Your task to perform on an android device: see creations saved in the google photos Image 0: 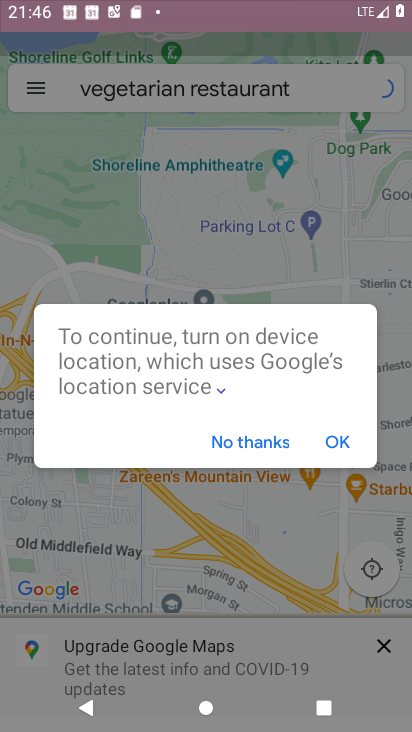
Step 0: click (260, 214)
Your task to perform on an android device: see creations saved in the google photos Image 1: 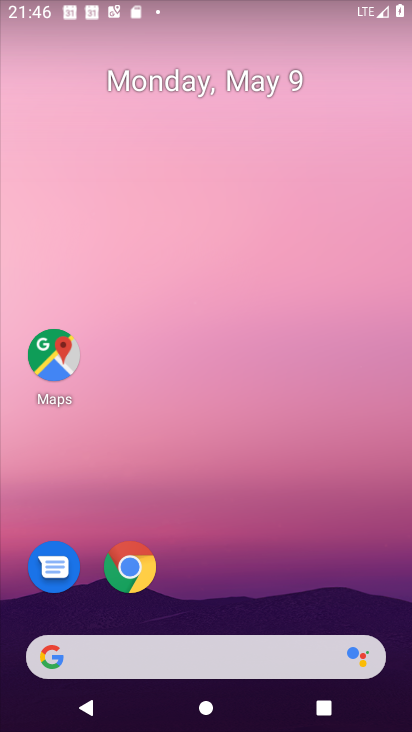
Step 1: drag from (193, 593) to (295, 128)
Your task to perform on an android device: see creations saved in the google photos Image 2: 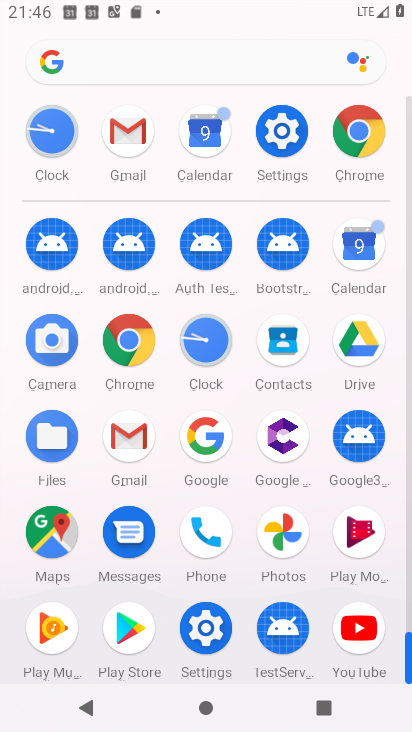
Step 2: click (280, 535)
Your task to perform on an android device: see creations saved in the google photos Image 3: 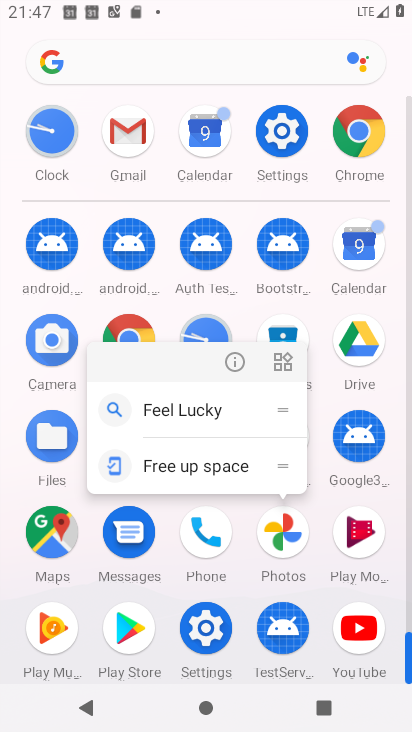
Step 3: click (223, 360)
Your task to perform on an android device: see creations saved in the google photos Image 4: 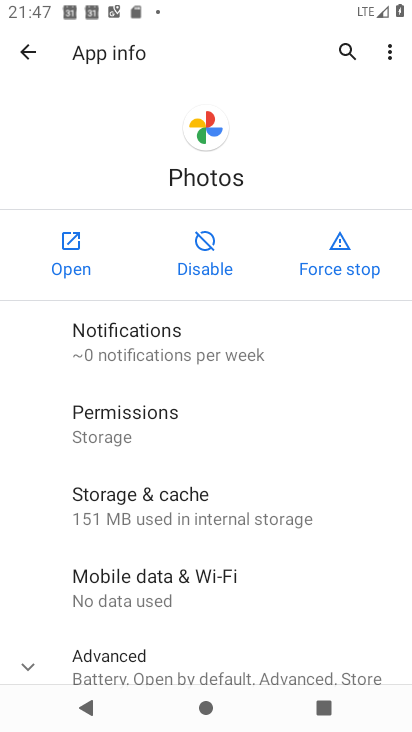
Step 4: click (52, 248)
Your task to perform on an android device: see creations saved in the google photos Image 5: 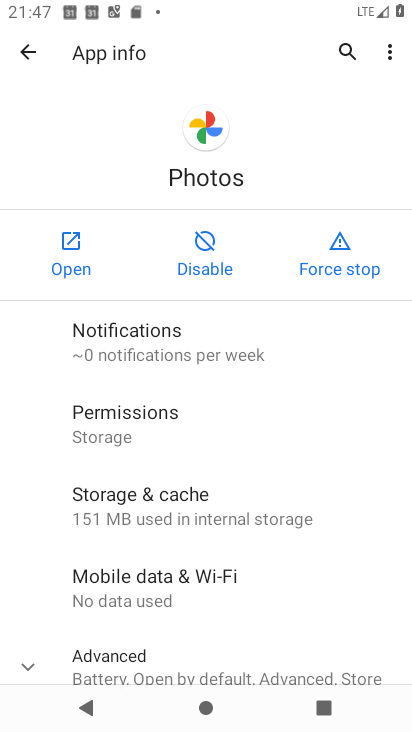
Step 5: click (57, 249)
Your task to perform on an android device: see creations saved in the google photos Image 6: 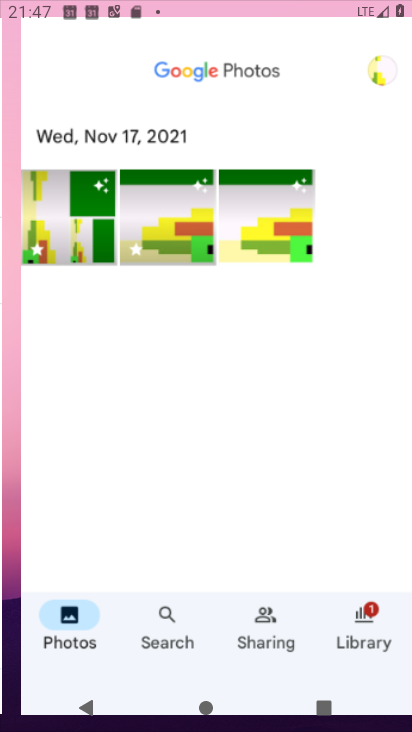
Step 6: click (66, 249)
Your task to perform on an android device: see creations saved in the google photos Image 7: 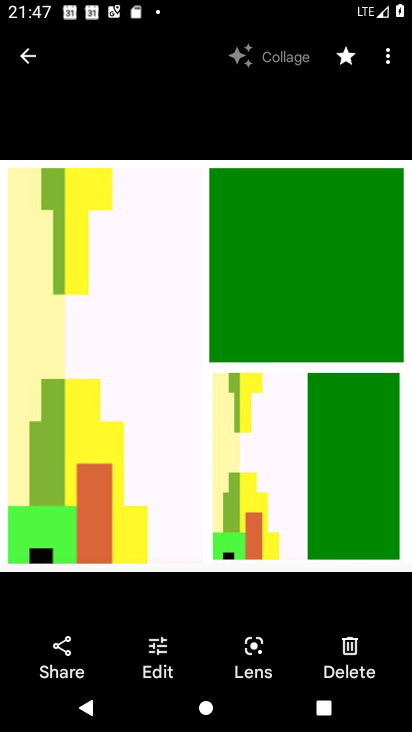
Step 7: click (167, 652)
Your task to perform on an android device: see creations saved in the google photos Image 8: 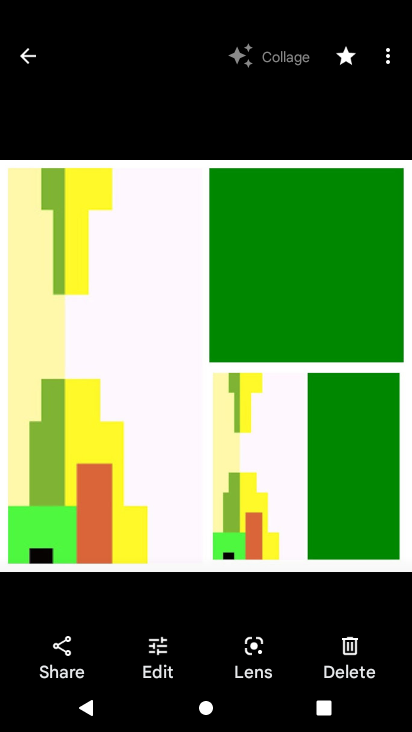
Step 8: click (26, 50)
Your task to perform on an android device: see creations saved in the google photos Image 9: 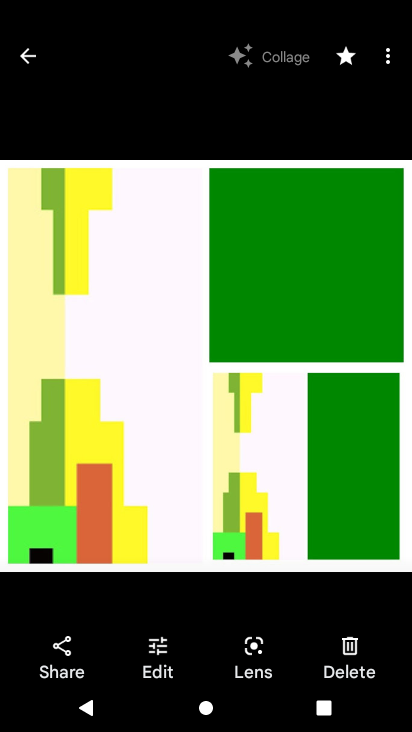
Step 9: click (27, 53)
Your task to perform on an android device: see creations saved in the google photos Image 10: 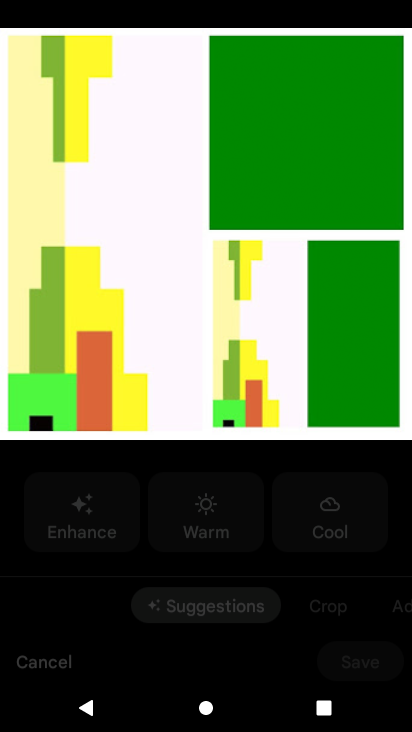
Step 10: press back button
Your task to perform on an android device: see creations saved in the google photos Image 11: 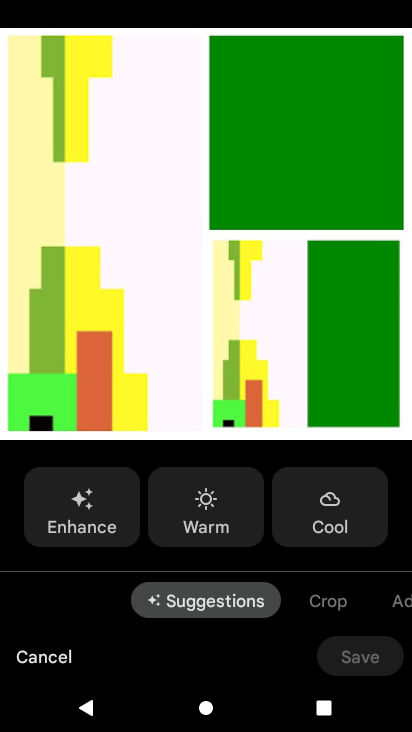
Step 11: press back button
Your task to perform on an android device: see creations saved in the google photos Image 12: 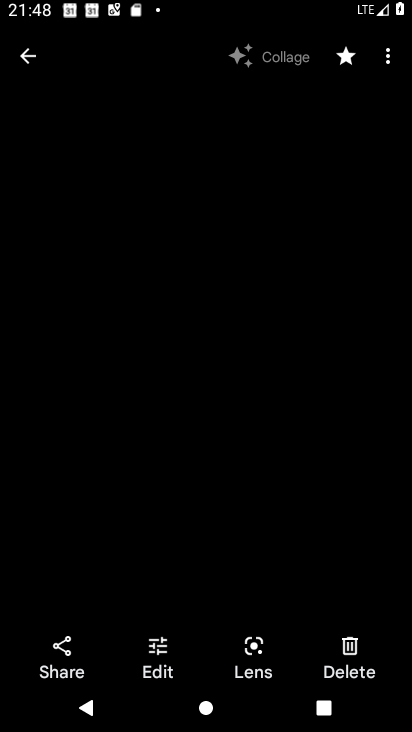
Step 12: press back button
Your task to perform on an android device: see creations saved in the google photos Image 13: 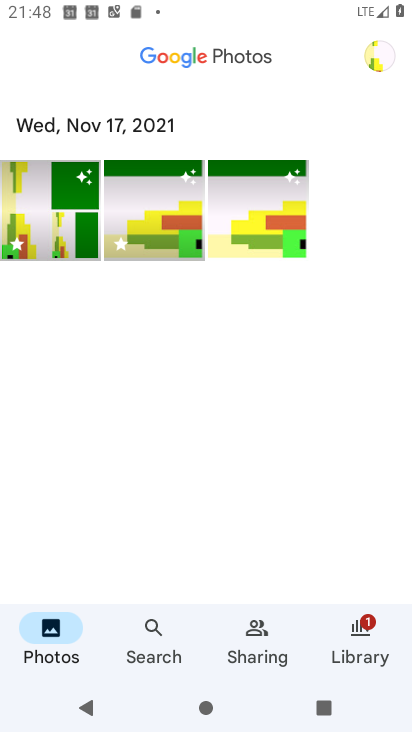
Step 13: click (165, 625)
Your task to perform on an android device: see creations saved in the google photos Image 14: 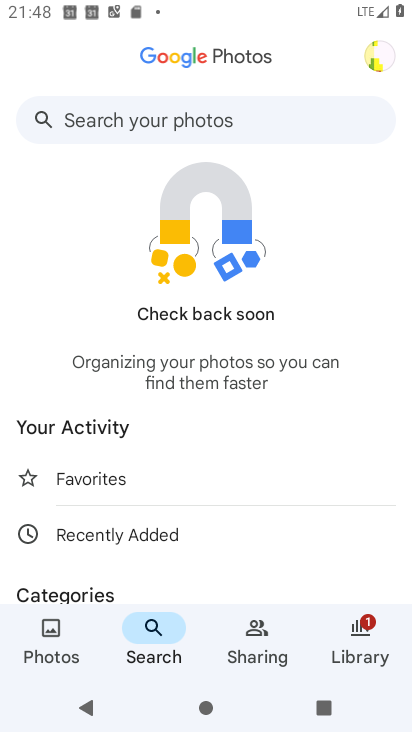
Step 14: drag from (171, 535) to (309, 18)
Your task to perform on an android device: see creations saved in the google photos Image 15: 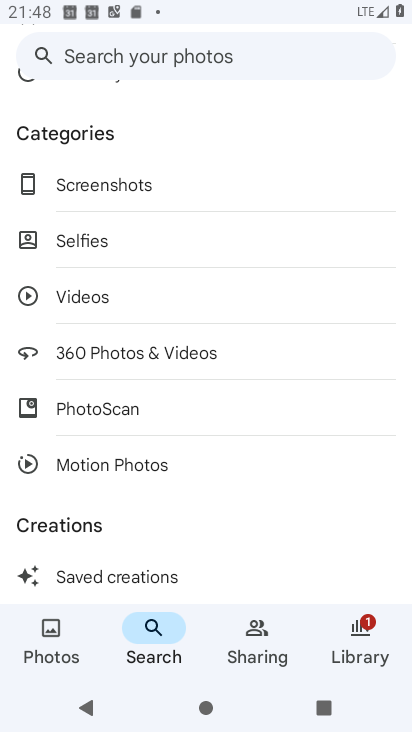
Step 15: drag from (195, 521) to (283, 136)
Your task to perform on an android device: see creations saved in the google photos Image 16: 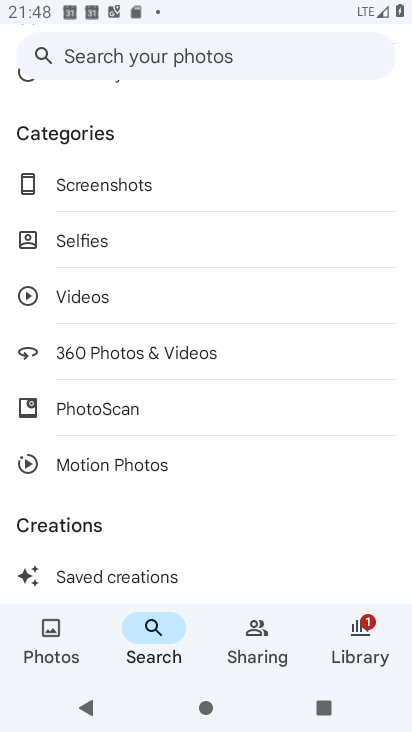
Step 16: click (125, 568)
Your task to perform on an android device: see creations saved in the google photos Image 17: 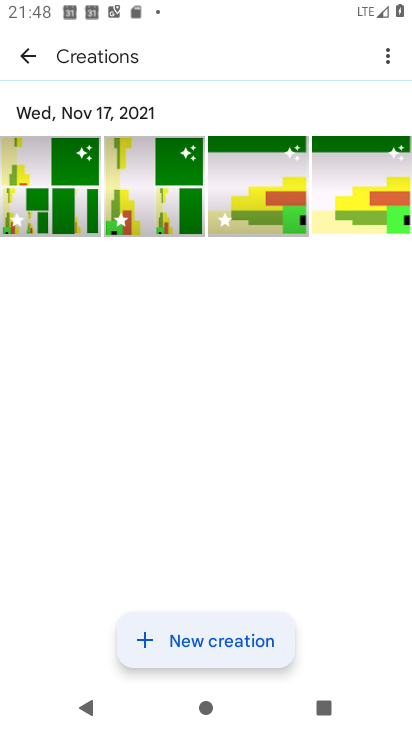
Step 17: drag from (126, 557) to (217, 205)
Your task to perform on an android device: see creations saved in the google photos Image 18: 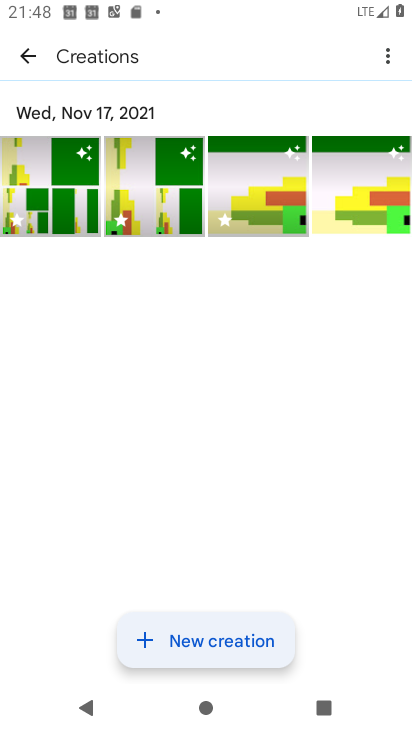
Step 18: click (161, 198)
Your task to perform on an android device: see creations saved in the google photos Image 19: 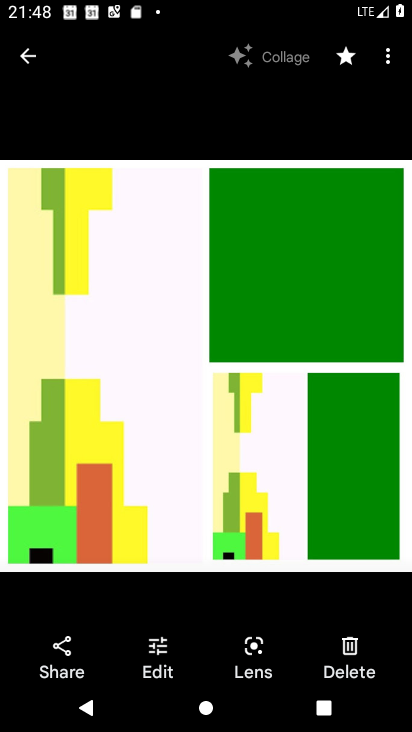
Step 19: task complete